Your task to perform on an android device: When is my next meeting? Image 0: 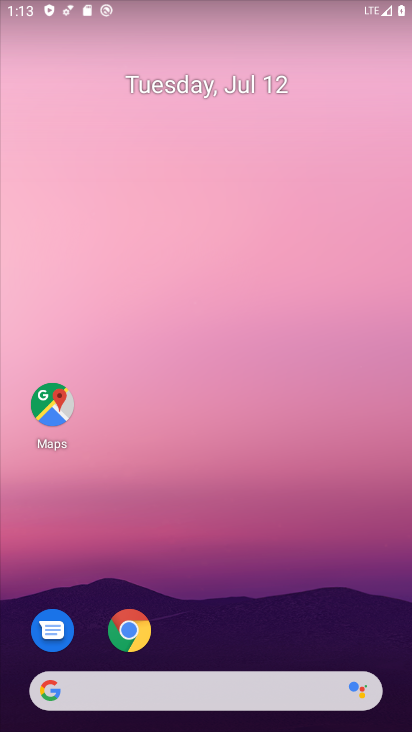
Step 0: drag from (340, 641) to (263, 19)
Your task to perform on an android device: When is my next meeting? Image 1: 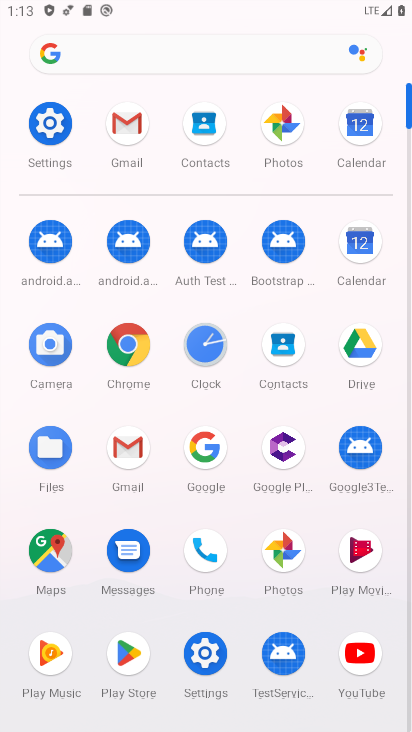
Step 1: click (356, 246)
Your task to perform on an android device: When is my next meeting? Image 2: 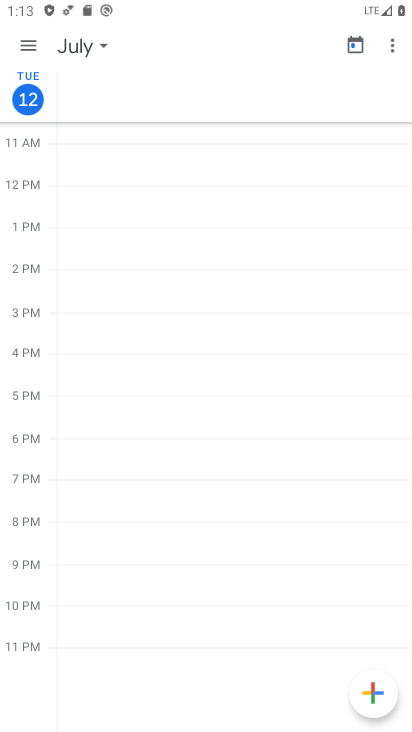
Step 2: click (23, 31)
Your task to perform on an android device: When is my next meeting? Image 3: 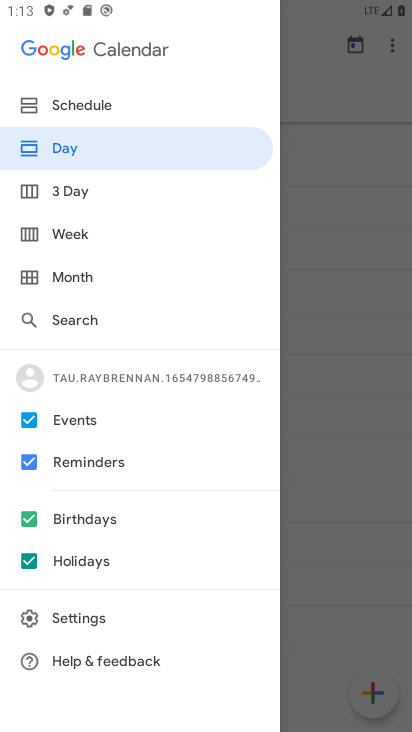
Step 3: click (88, 109)
Your task to perform on an android device: When is my next meeting? Image 4: 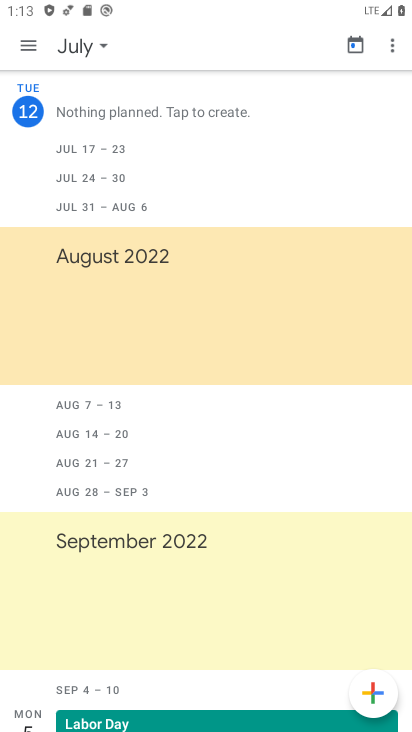
Step 4: task complete